Your task to perform on an android device: Open Yahoo.com Image 0: 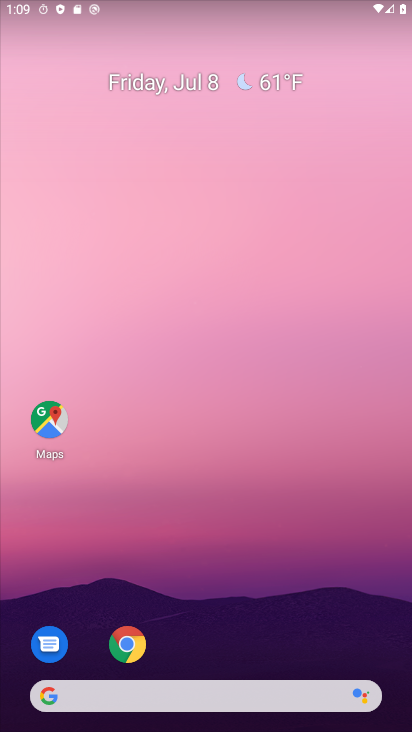
Step 0: click (131, 642)
Your task to perform on an android device: Open Yahoo.com Image 1: 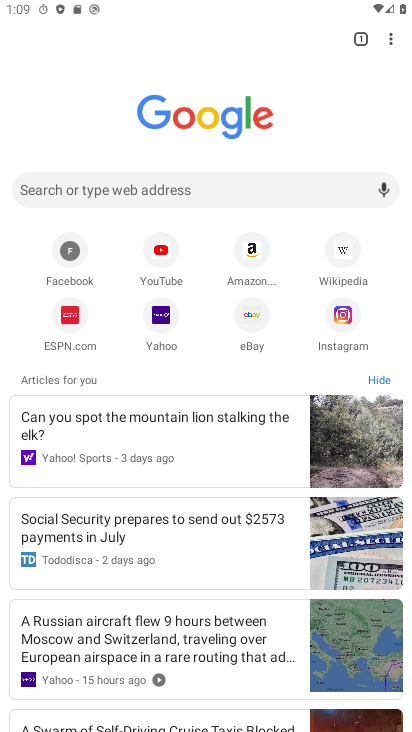
Step 1: click (163, 324)
Your task to perform on an android device: Open Yahoo.com Image 2: 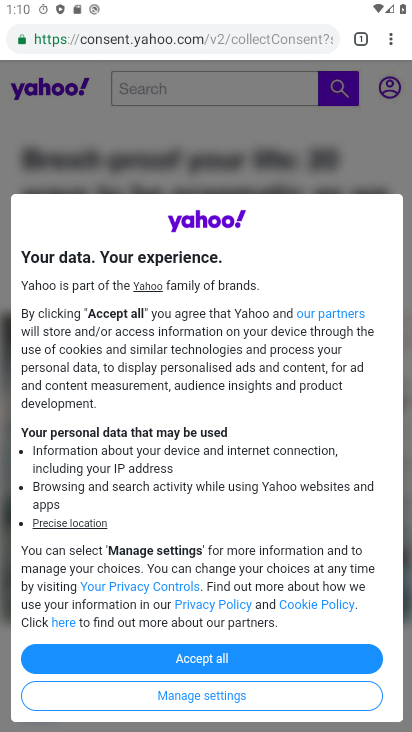
Step 2: click (222, 654)
Your task to perform on an android device: Open Yahoo.com Image 3: 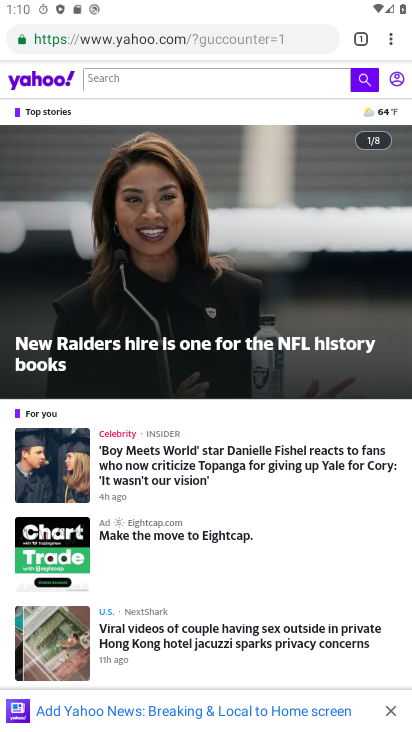
Step 3: task complete